Your task to perform on an android device: turn on the 24-hour format for clock Image 0: 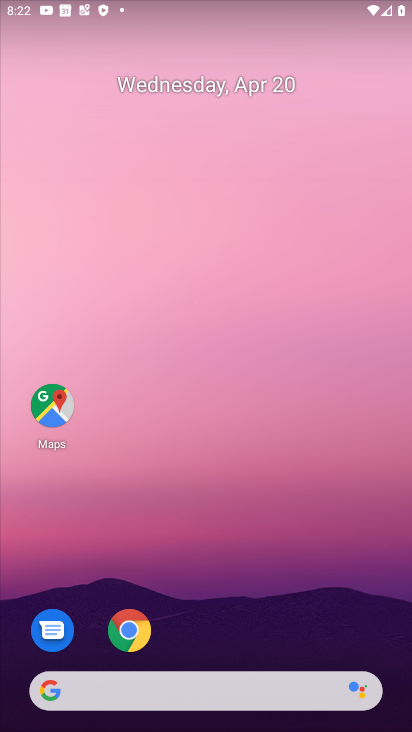
Step 0: drag from (232, 594) to (205, 134)
Your task to perform on an android device: turn on the 24-hour format for clock Image 1: 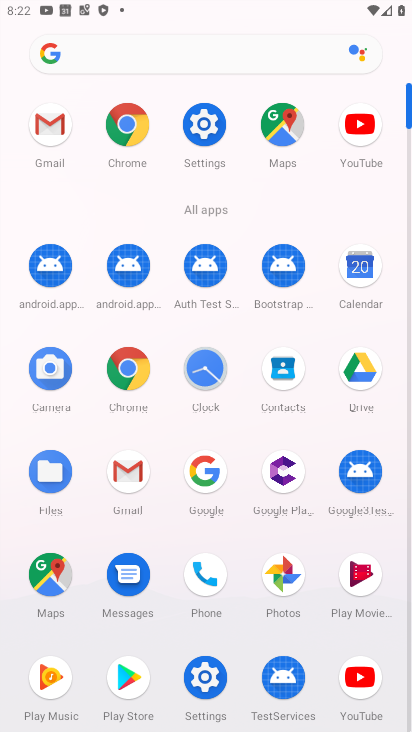
Step 1: click (197, 370)
Your task to perform on an android device: turn on the 24-hour format for clock Image 2: 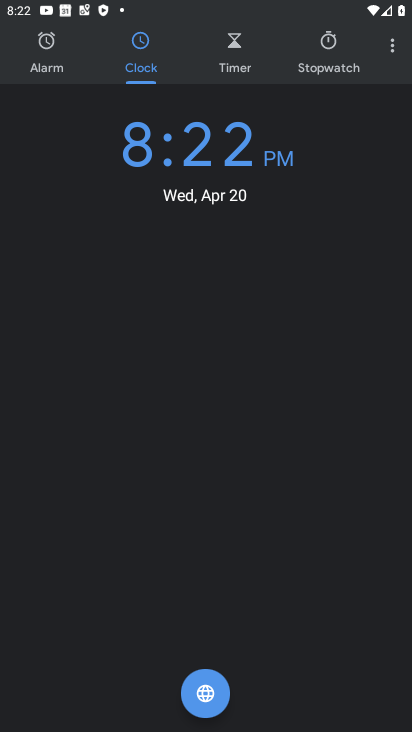
Step 2: click (396, 52)
Your task to perform on an android device: turn on the 24-hour format for clock Image 3: 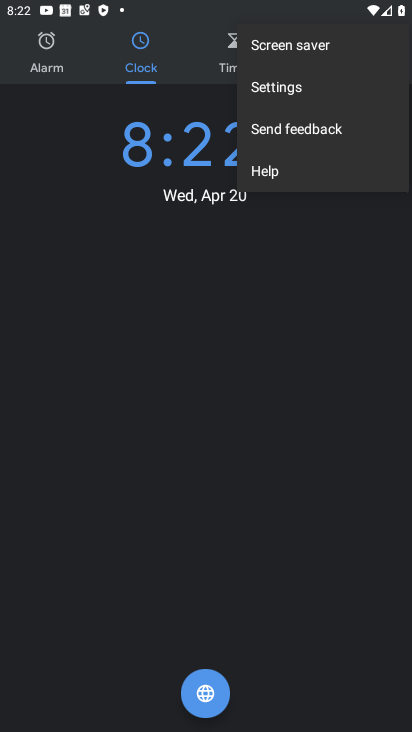
Step 3: click (317, 91)
Your task to perform on an android device: turn on the 24-hour format for clock Image 4: 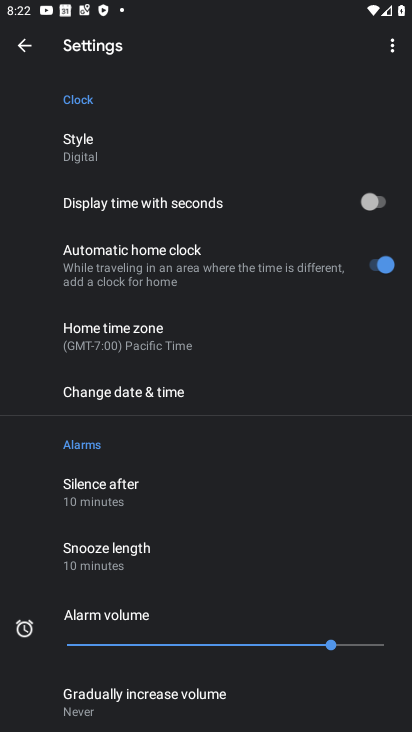
Step 4: click (185, 398)
Your task to perform on an android device: turn on the 24-hour format for clock Image 5: 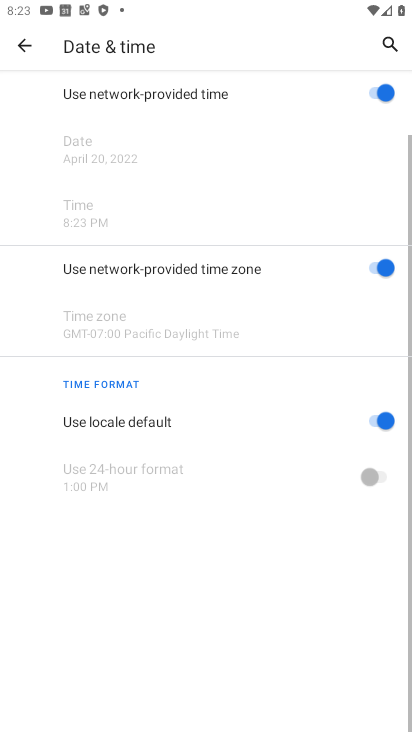
Step 5: click (375, 416)
Your task to perform on an android device: turn on the 24-hour format for clock Image 6: 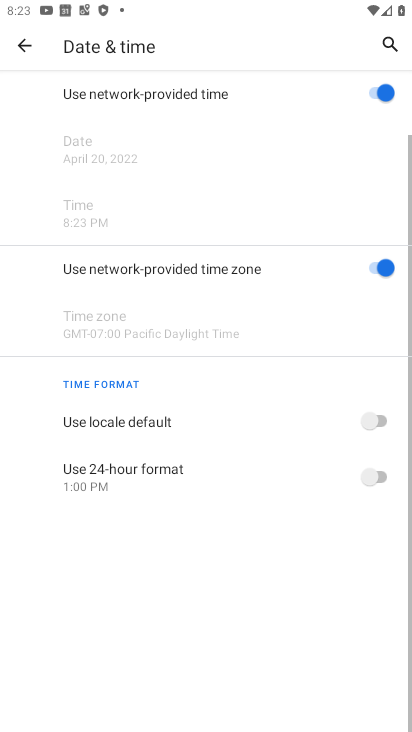
Step 6: click (370, 480)
Your task to perform on an android device: turn on the 24-hour format for clock Image 7: 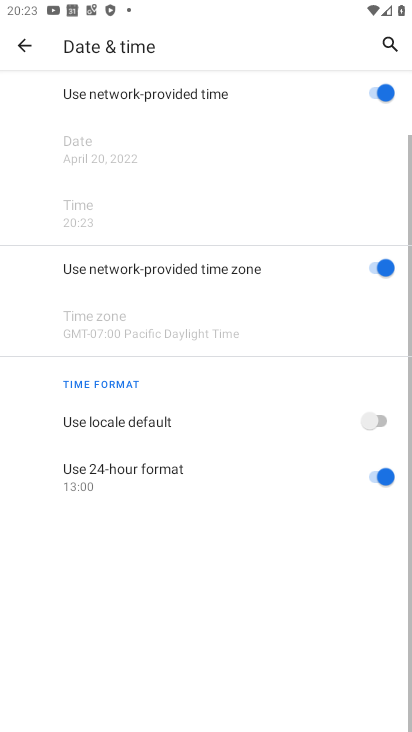
Step 7: click (370, 480)
Your task to perform on an android device: turn on the 24-hour format for clock Image 8: 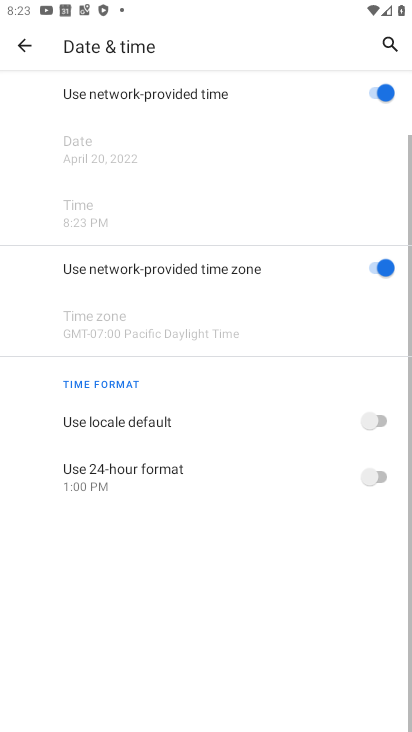
Step 8: click (370, 480)
Your task to perform on an android device: turn on the 24-hour format for clock Image 9: 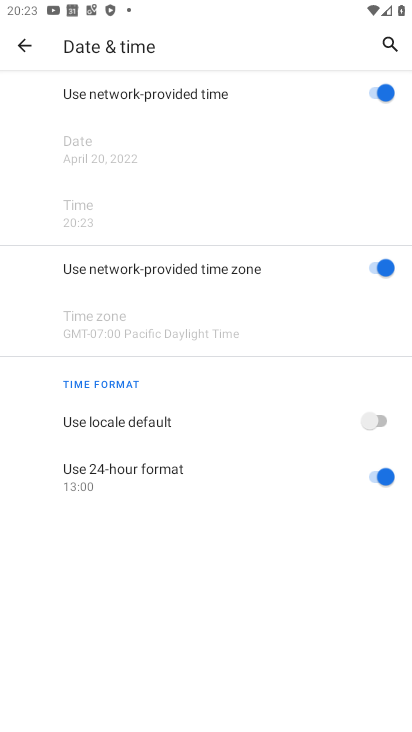
Step 9: task complete